Your task to perform on an android device: Go to Reddit.com Image 0: 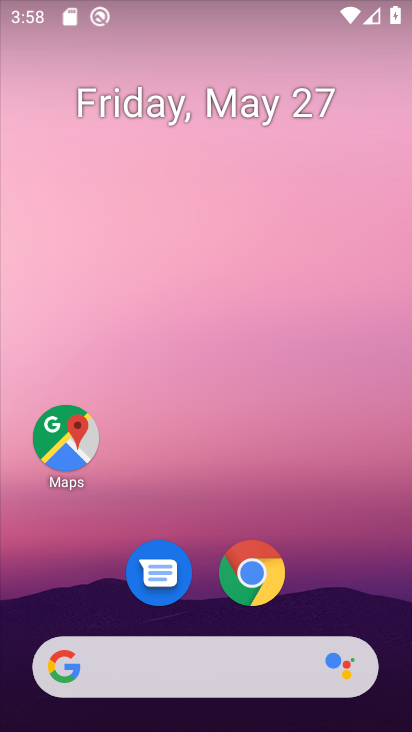
Step 0: click (247, 664)
Your task to perform on an android device: Go to Reddit.com Image 1: 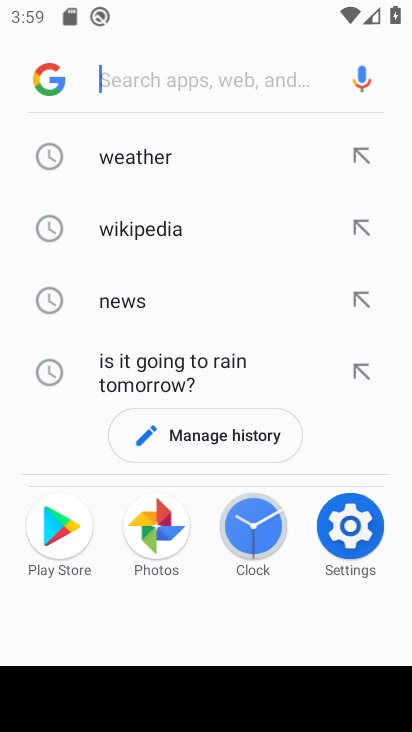
Step 1: type "reddit.com"
Your task to perform on an android device: Go to Reddit.com Image 2: 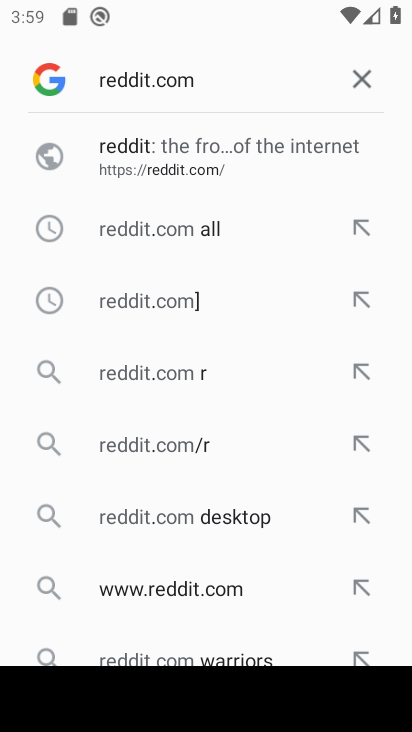
Step 2: click (146, 156)
Your task to perform on an android device: Go to Reddit.com Image 3: 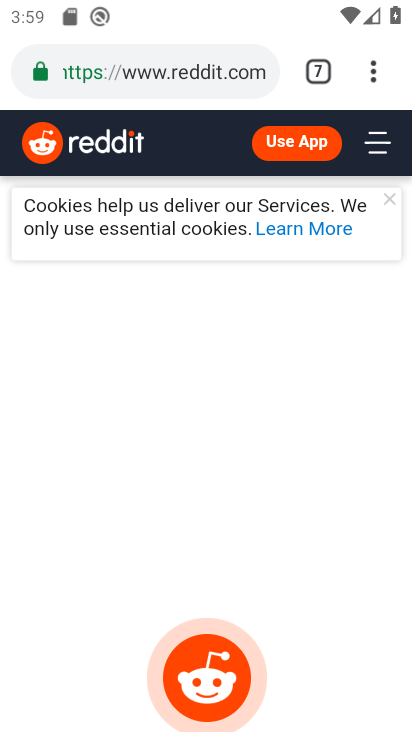
Step 3: task complete